Your task to perform on an android device: Go to internet settings Image 0: 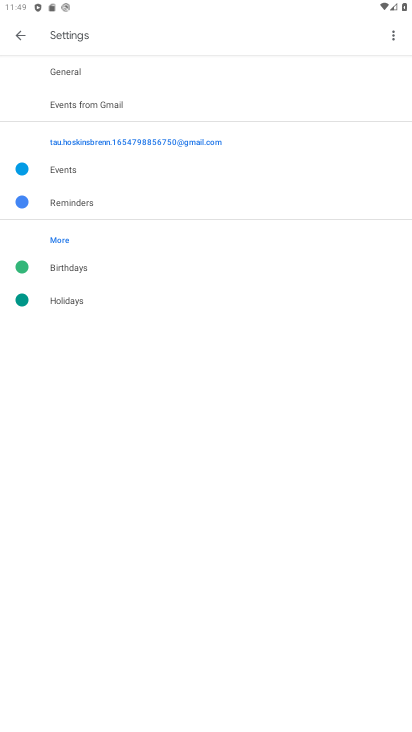
Step 0: press home button
Your task to perform on an android device: Go to internet settings Image 1: 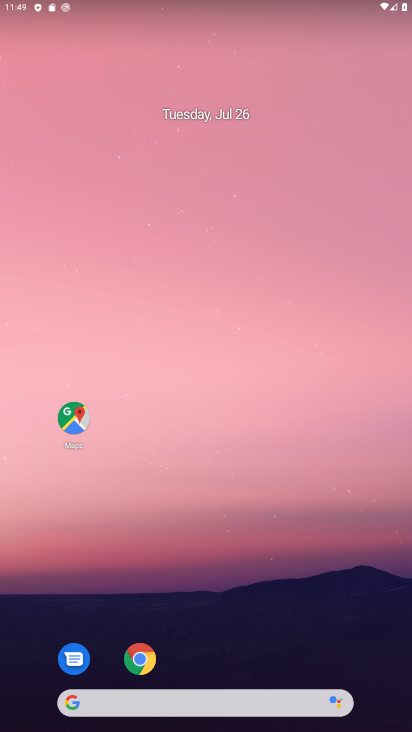
Step 1: drag from (204, 637) to (258, 289)
Your task to perform on an android device: Go to internet settings Image 2: 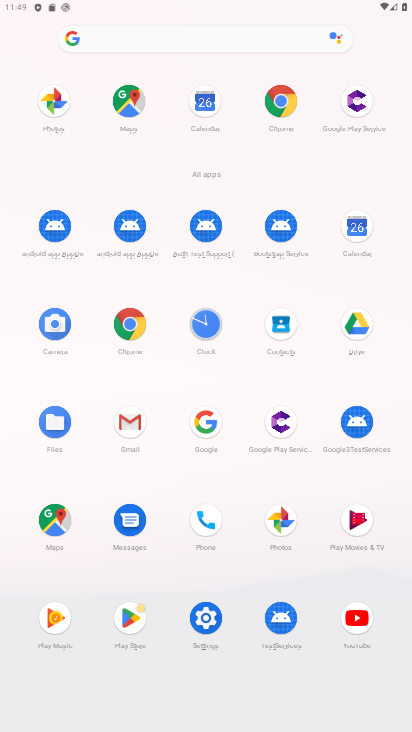
Step 2: click (200, 626)
Your task to perform on an android device: Go to internet settings Image 3: 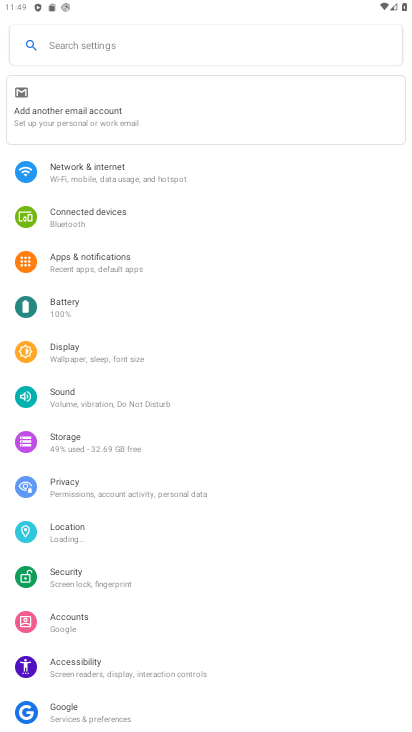
Step 3: click (117, 166)
Your task to perform on an android device: Go to internet settings Image 4: 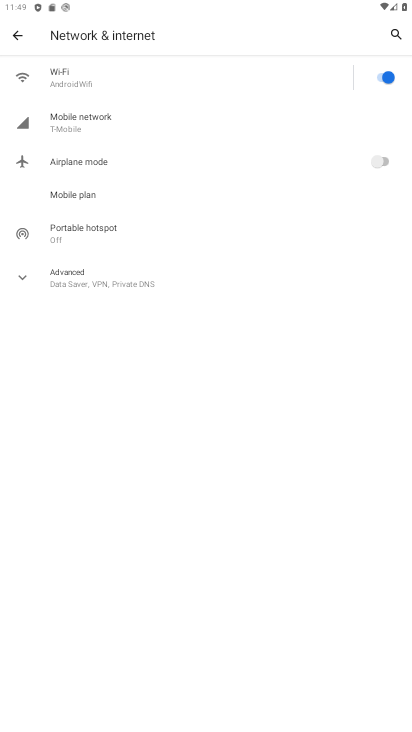
Step 4: task complete